Your task to perform on an android device: Go to sound settings Image 0: 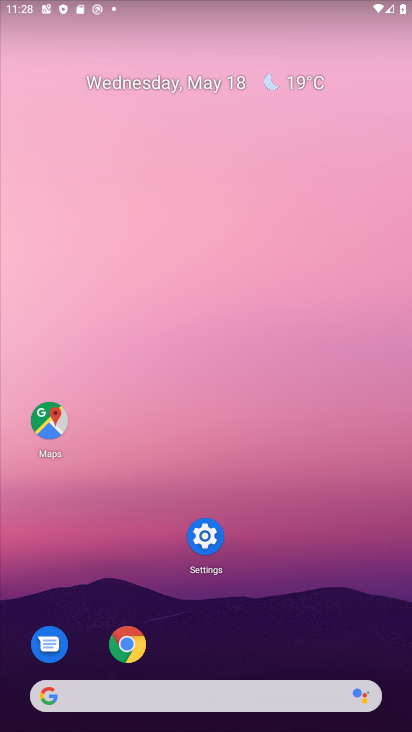
Step 0: drag from (353, 577) to (398, 141)
Your task to perform on an android device: Go to sound settings Image 1: 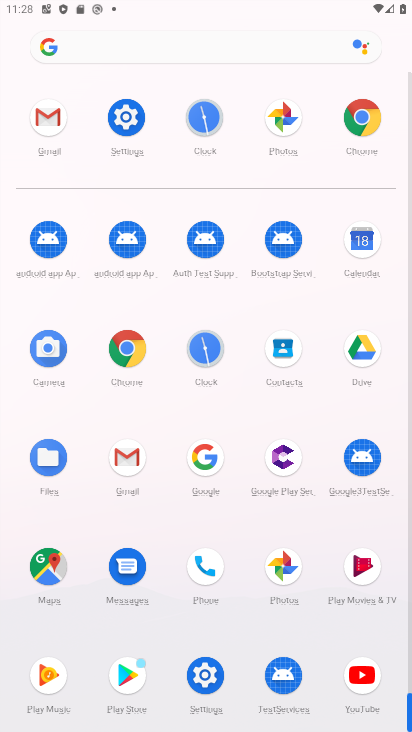
Step 1: click (133, 117)
Your task to perform on an android device: Go to sound settings Image 2: 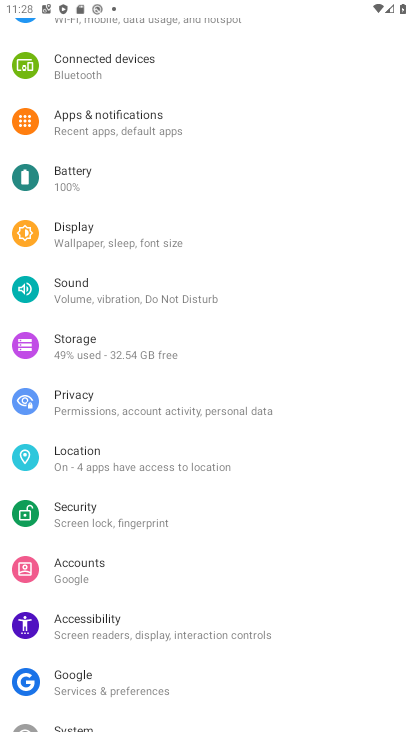
Step 2: drag from (185, 114) to (223, 502)
Your task to perform on an android device: Go to sound settings Image 3: 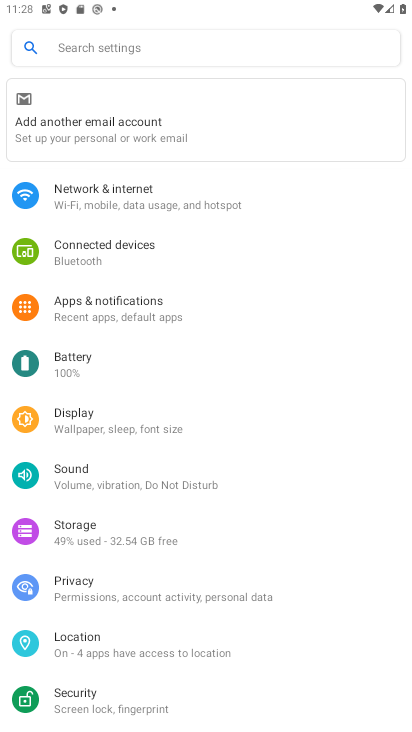
Step 3: click (157, 460)
Your task to perform on an android device: Go to sound settings Image 4: 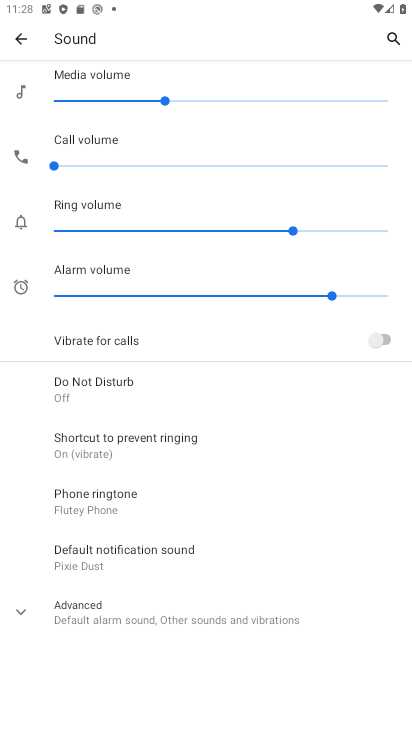
Step 4: task complete